Your task to perform on an android device: Open ESPN.com Image 0: 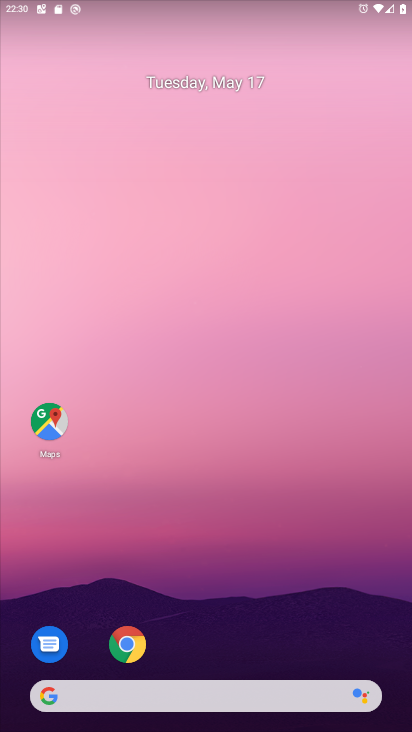
Step 0: click (118, 642)
Your task to perform on an android device: Open ESPN.com Image 1: 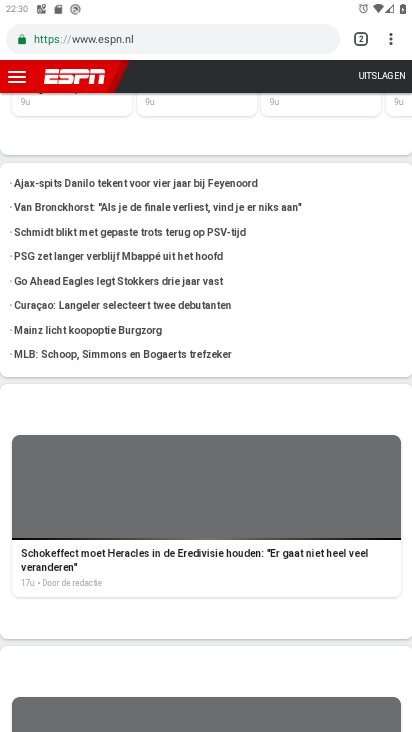
Step 1: drag from (186, 638) to (210, 306)
Your task to perform on an android device: Open ESPN.com Image 2: 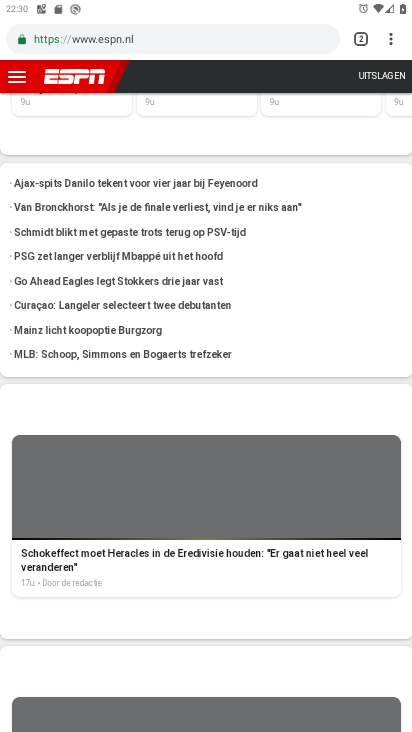
Step 2: click (210, 233)
Your task to perform on an android device: Open ESPN.com Image 3: 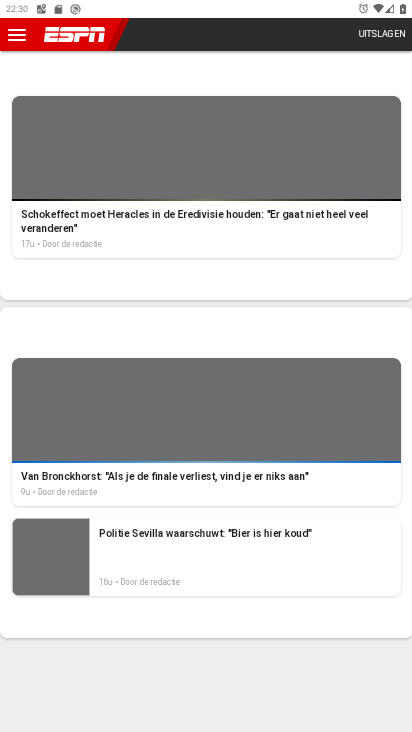
Step 3: task complete